Your task to perform on an android device: Go to battery settings Image 0: 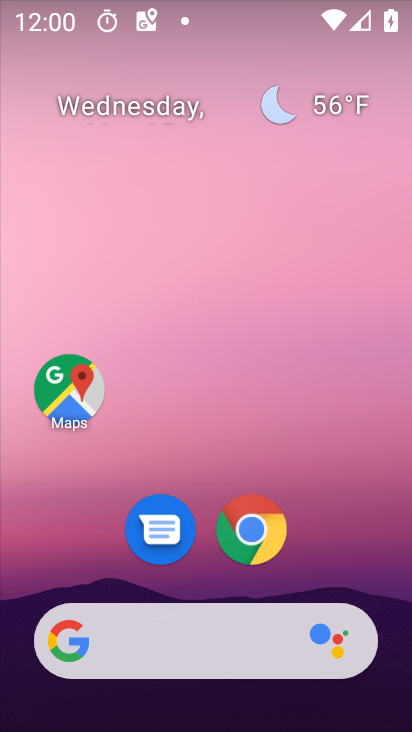
Step 0: drag from (210, 557) to (349, 14)
Your task to perform on an android device: Go to battery settings Image 1: 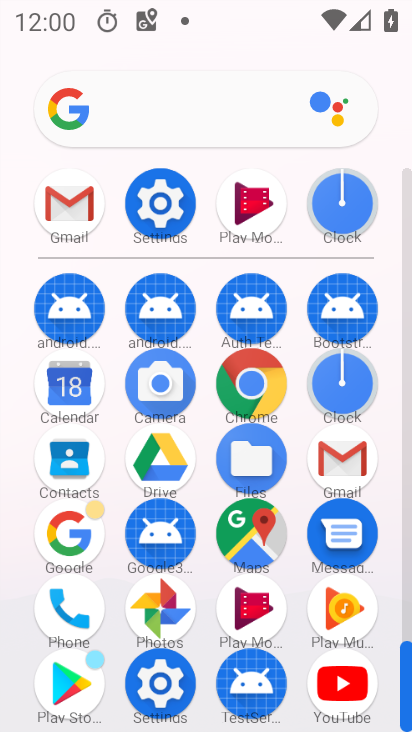
Step 1: click (161, 228)
Your task to perform on an android device: Go to battery settings Image 2: 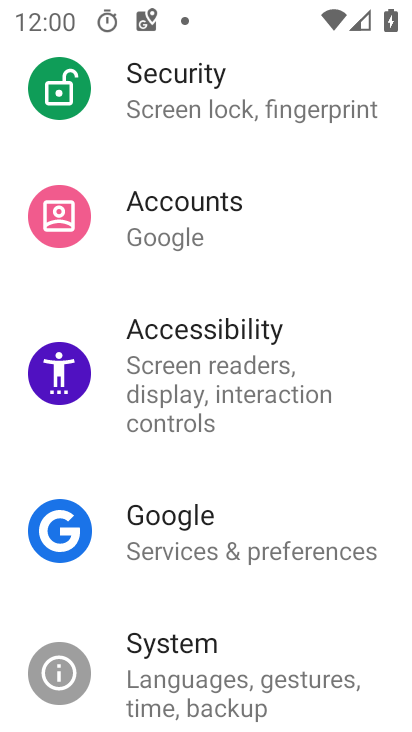
Step 2: drag from (161, 228) to (228, 666)
Your task to perform on an android device: Go to battery settings Image 3: 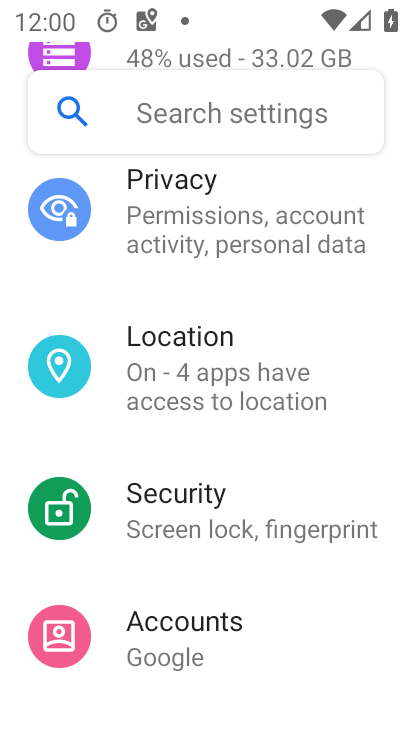
Step 3: drag from (207, 235) to (125, 667)
Your task to perform on an android device: Go to battery settings Image 4: 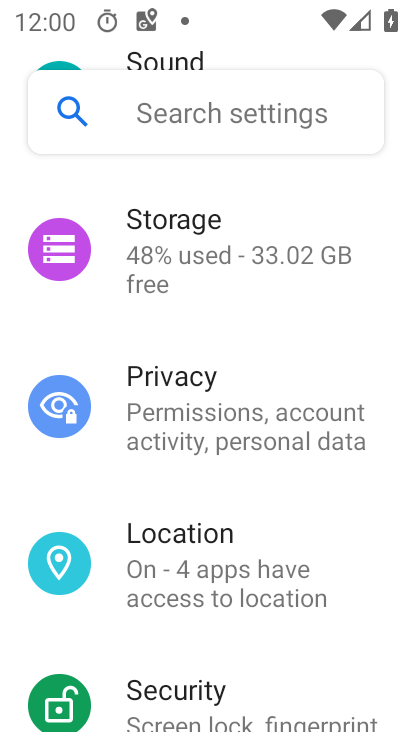
Step 4: drag from (185, 380) to (179, 720)
Your task to perform on an android device: Go to battery settings Image 5: 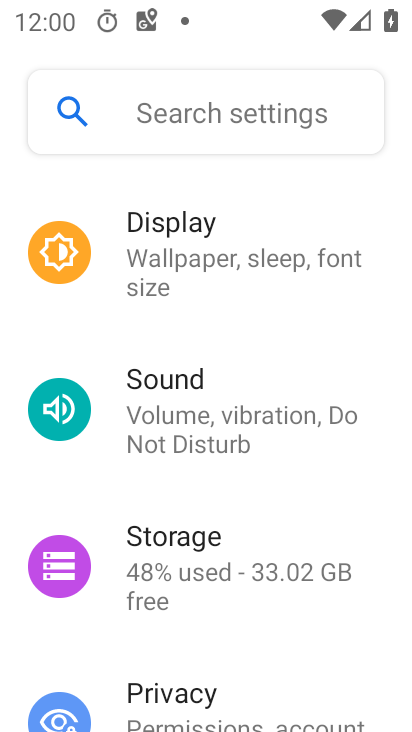
Step 5: drag from (226, 292) to (209, 603)
Your task to perform on an android device: Go to battery settings Image 6: 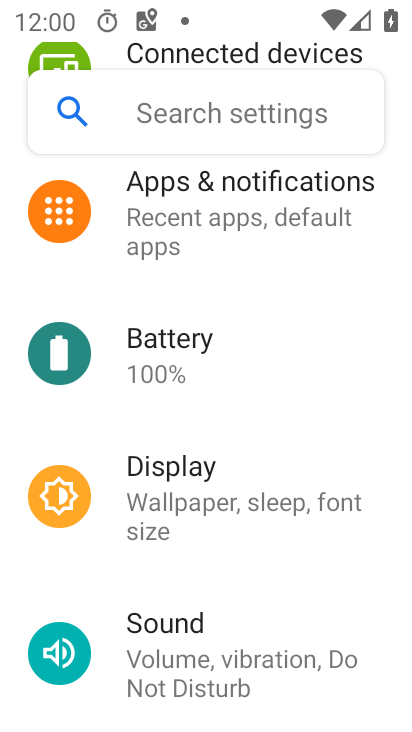
Step 6: click (155, 369)
Your task to perform on an android device: Go to battery settings Image 7: 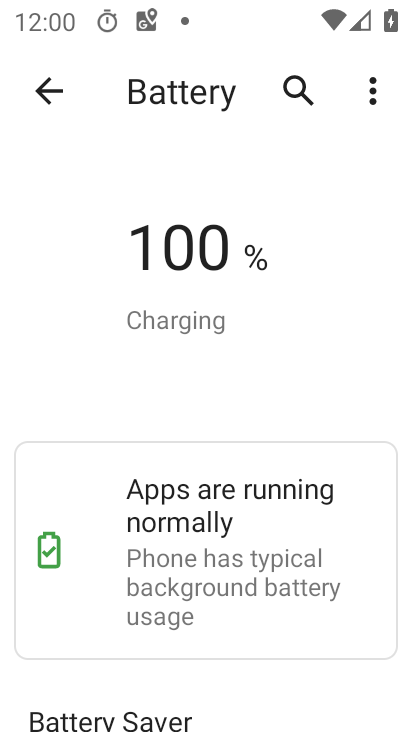
Step 7: task complete